Your task to perform on an android device: open wifi settings Image 0: 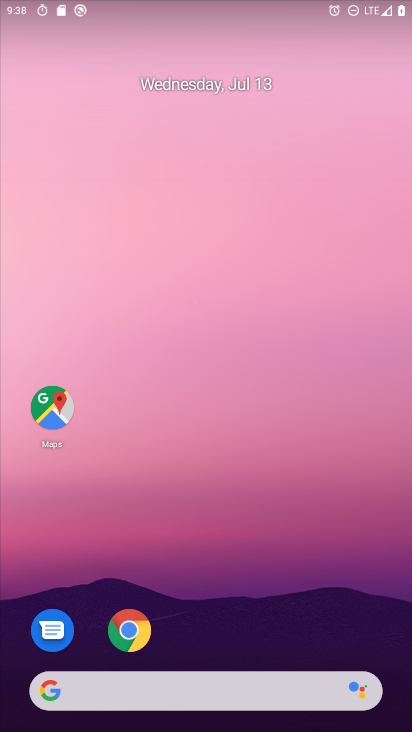
Step 0: drag from (394, 641) to (351, 128)
Your task to perform on an android device: open wifi settings Image 1: 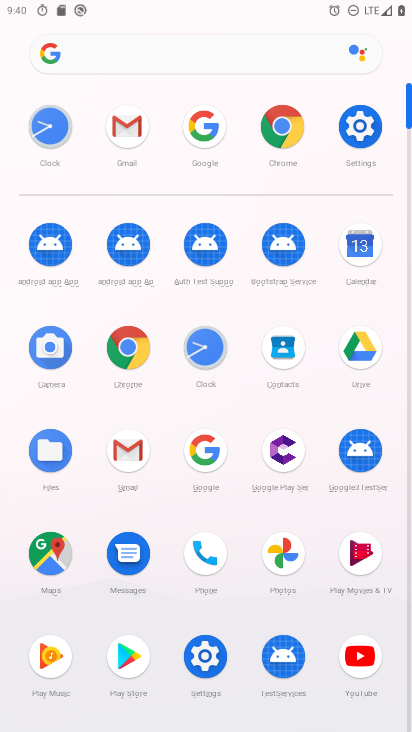
Step 1: click (223, 654)
Your task to perform on an android device: open wifi settings Image 2: 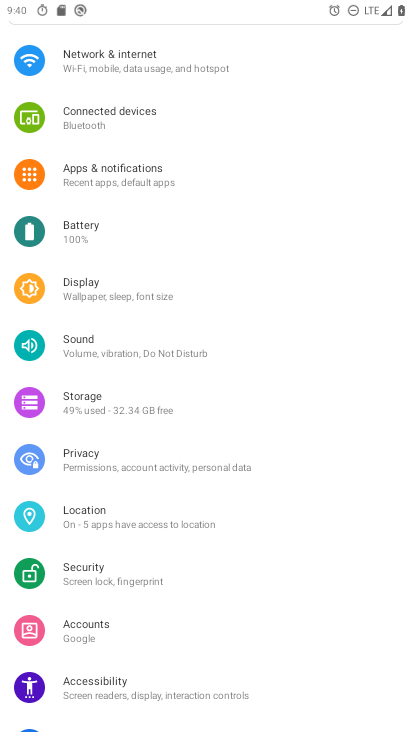
Step 2: click (130, 58)
Your task to perform on an android device: open wifi settings Image 3: 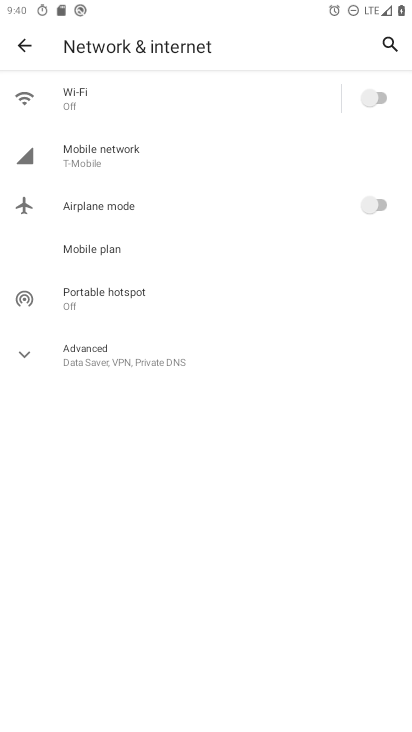
Step 3: click (124, 83)
Your task to perform on an android device: open wifi settings Image 4: 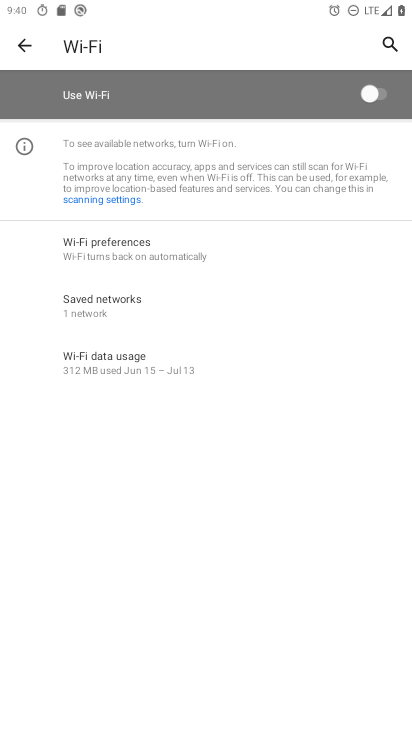
Step 4: task complete